Your task to perform on an android device: toggle airplane mode Image 0: 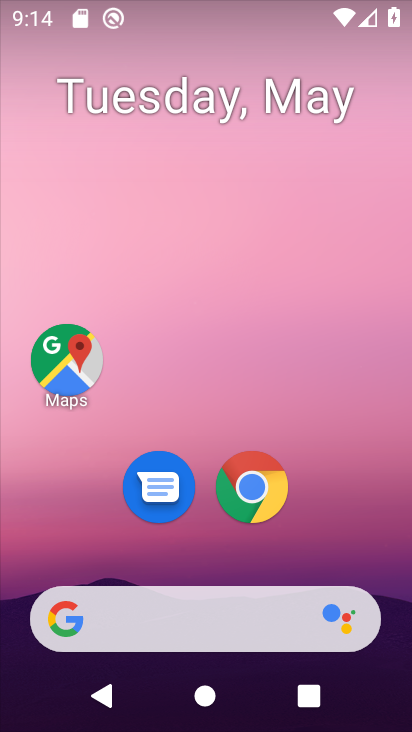
Step 0: press home button
Your task to perform on an android device: toggle airplane mode Image 1: 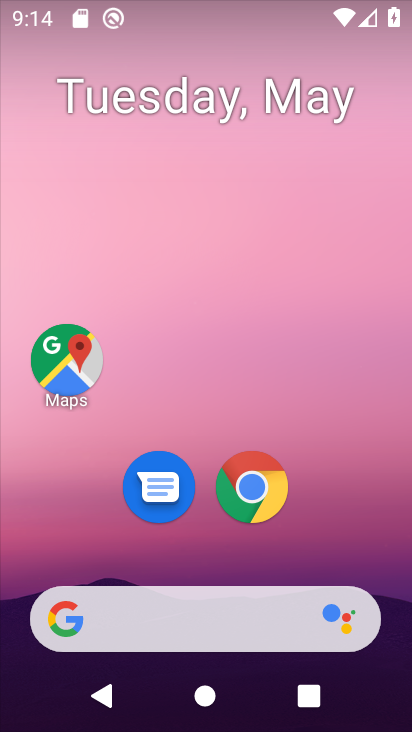
Step 1: drag from (198, 599) to (326, 140)
Your task to perform on an android device: toggle airplane mode Image 2: 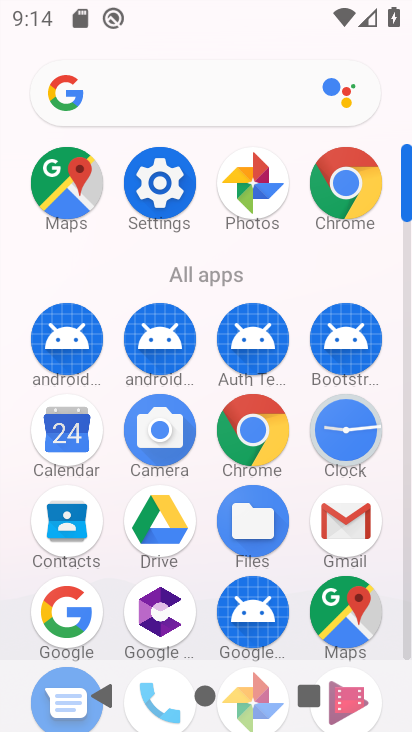
Step 2: click (153, 193)
Your task to perform on an android device: toggle airplane mode Image 3: 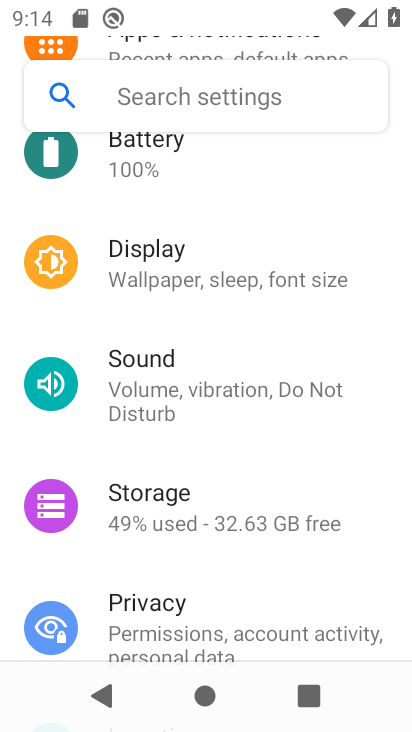
Step 3: drag from (295, 168) to (241, 590)
Your task to perform on an android device: toggle airplane mode Image 4: 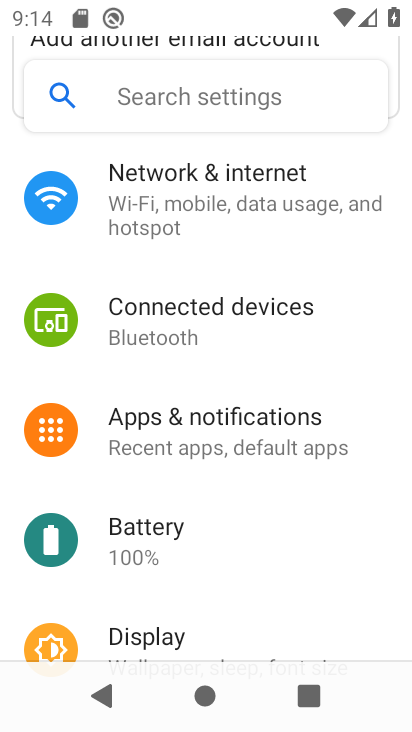
Step 4: drag from (280, 257) to (239, 486)
Your task to perform on an android device: toggle airplane mode Image 5: 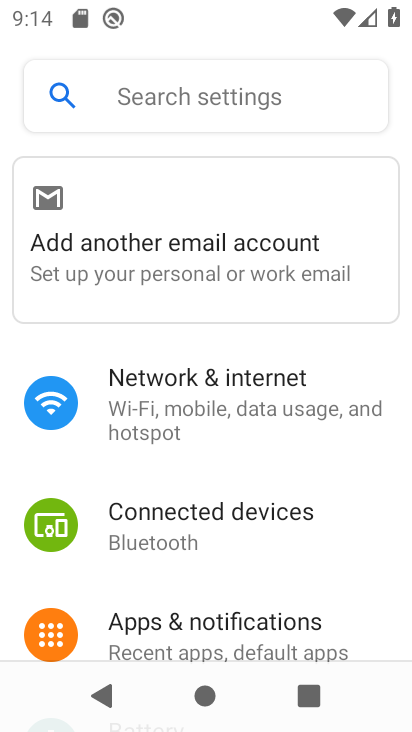
Step 5: click (202, 385)
Your task to perform on an android device: toggle airplane mode Image 6: 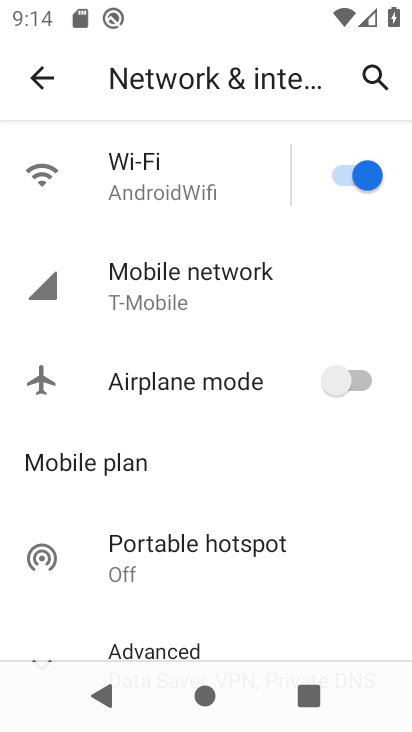
Step 6: click (362, 378)
Your task to perform on an android device: toggle airplane mode Image 7: 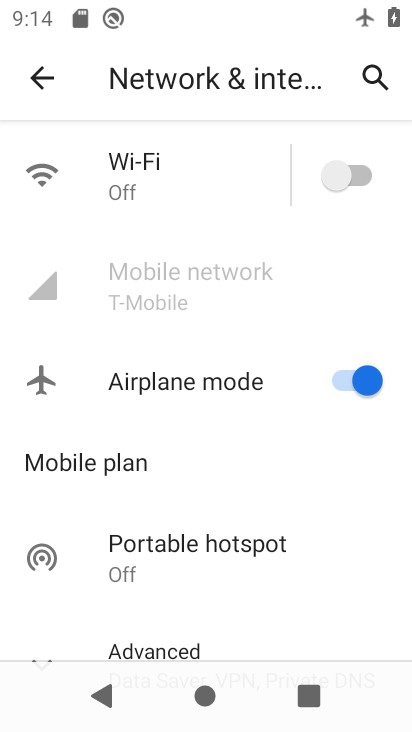
Step 7: task complete